Your task to perform on an android device: delete location history Image 0: 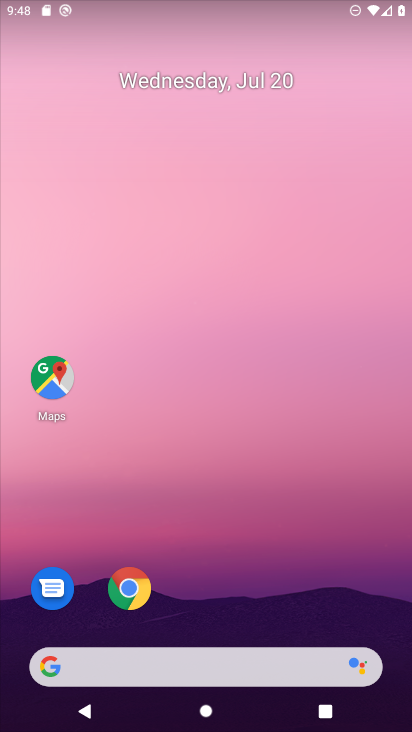
Step 0: press home button
Your task to perform on an android device: delete location history Image 1: 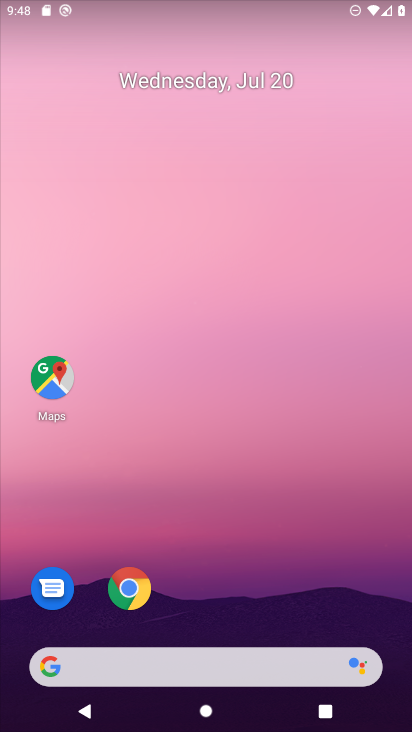
Step 1: click (52, 384)
Your task to perform on an android device: delete location history Image 2: 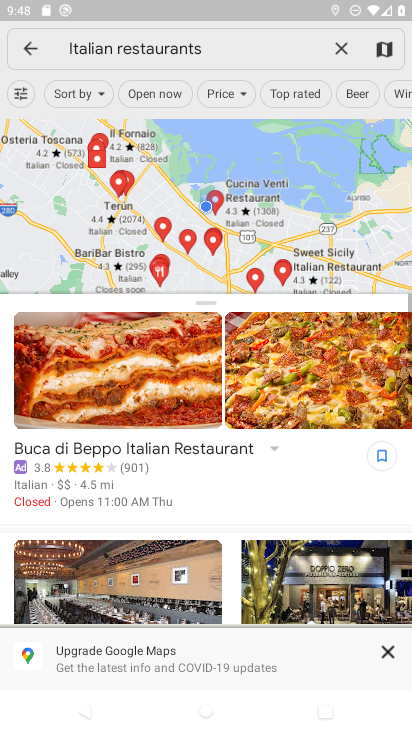
Step 2: click (28, 49)
Your task to perform on an android device: delete location history Image 3: 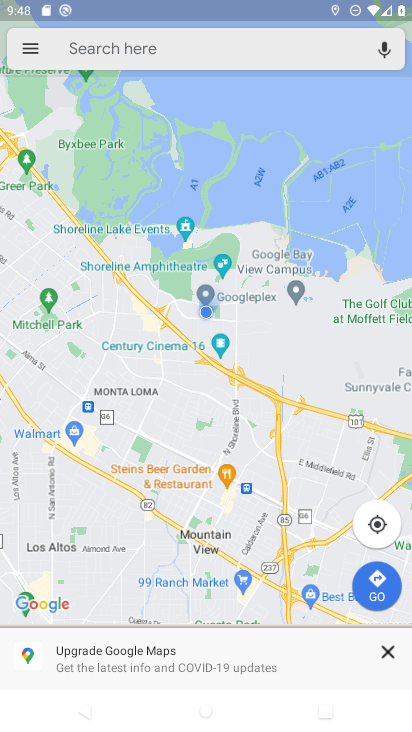
Step 3: click (24, 41)
Your task to perform on an android device: delete location history Image 4: 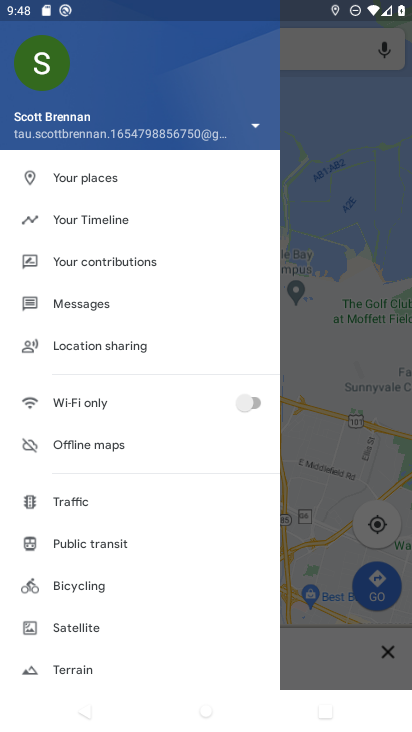
Step 4: drag from (124, 501) to (114, 270)
Your task to perform on an android device: delete location history Image 5: 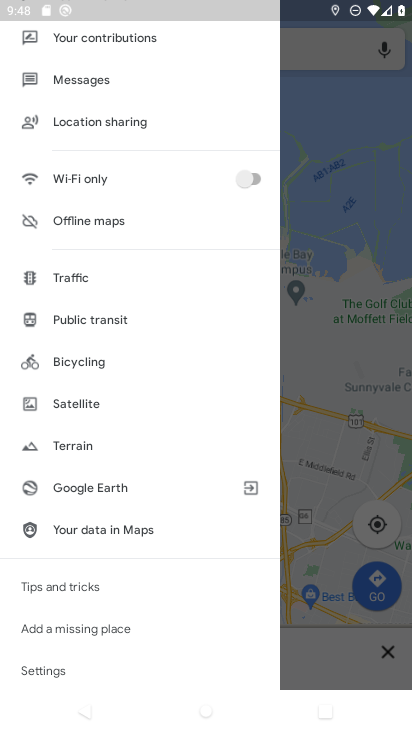
Step 5: click (64, 682)
Your task to perform on an android device: delete location history Image 6: 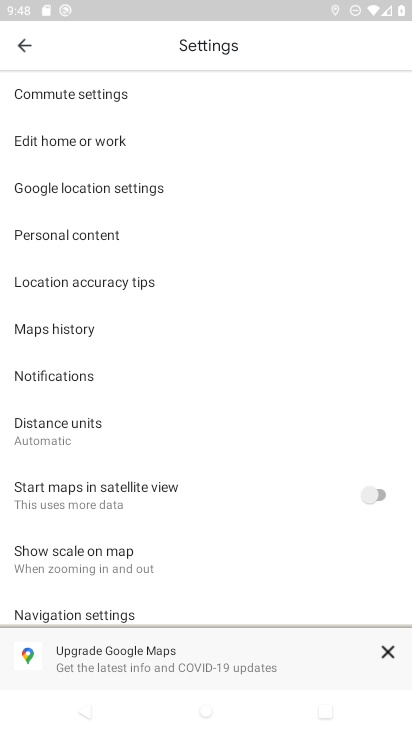
Step 6: click (42, 323)
Your task to perform on an android device: delete location history Image 7: 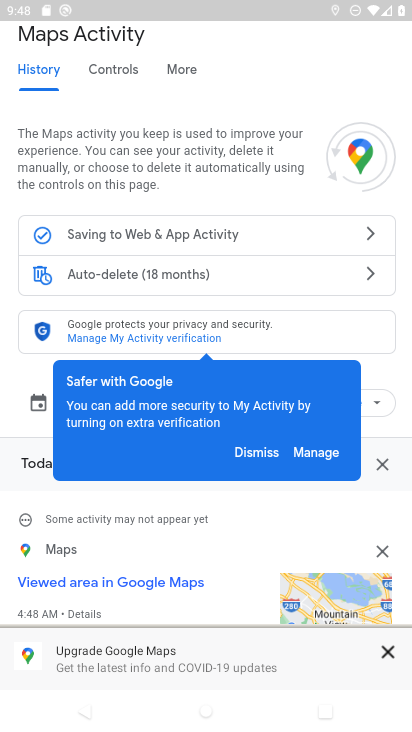
Step 7: click (386, 651)
Your task to perform on an android device: delete location history Image 8: 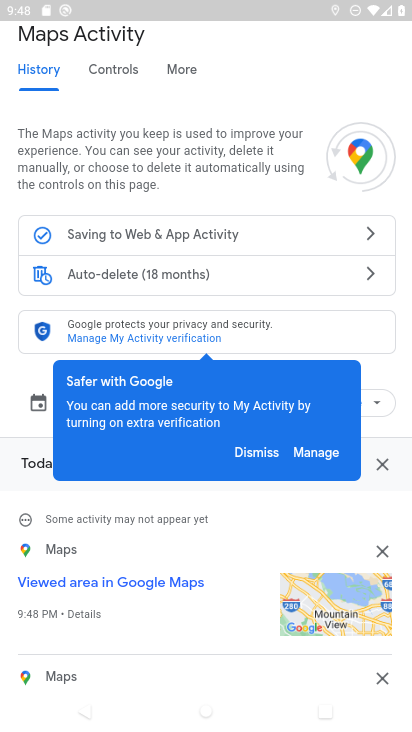
Step 8: click (307, 457)
Your task to perform on an android device: delete location history Image 9: 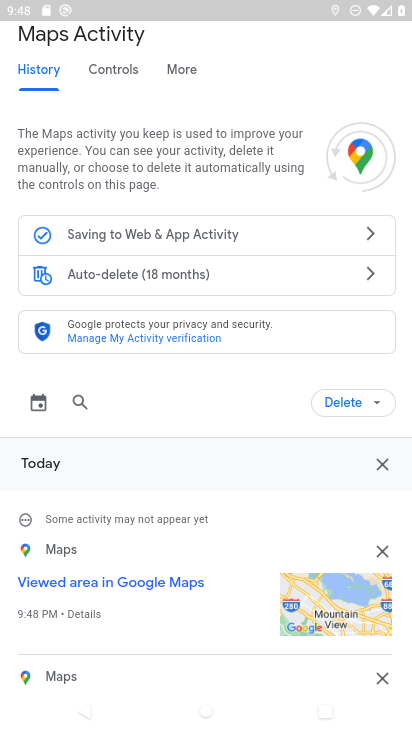
Step 9: click (345, 411)
Your task to perform on an android device: delete location history Image 10: 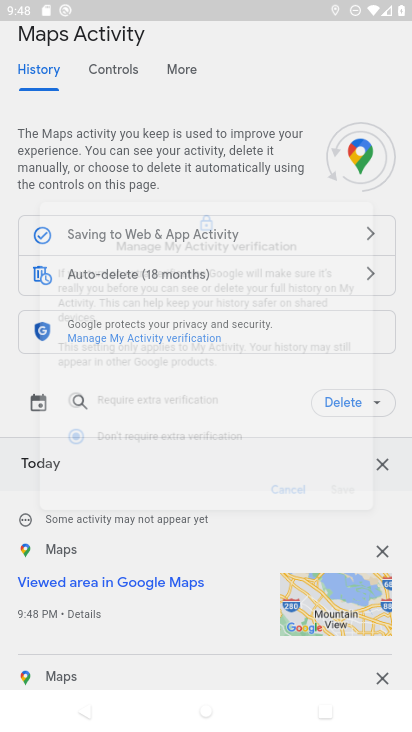
Step 10: click (347, 401)
Your task to perform on an android device: delete location history Image 11: 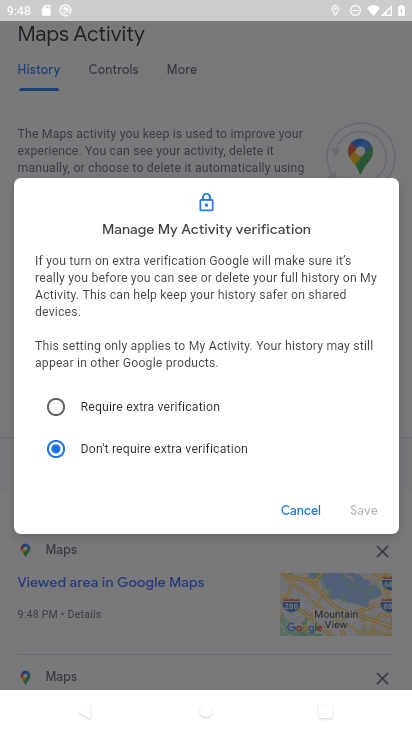
Step 11: click (305, 508)
Your task to perform on an android device: delete location history Image 12: 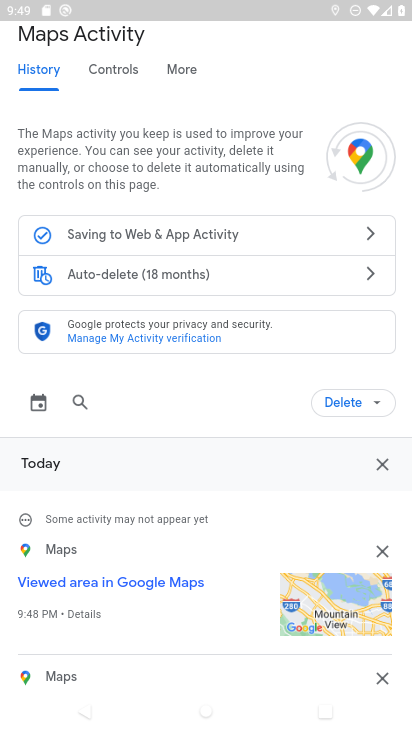
Step 12: click (339, 399)
Your task to perform on an android device: delete location history Image 13: 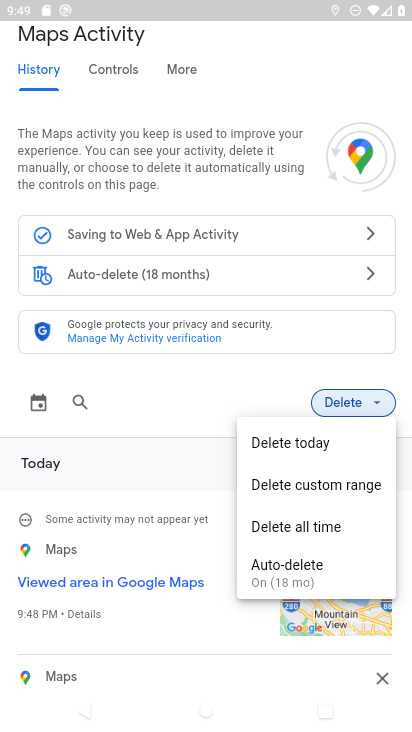
Step 13: click (320, 527)
Your task to perform on an android device: delete location history Image 14: 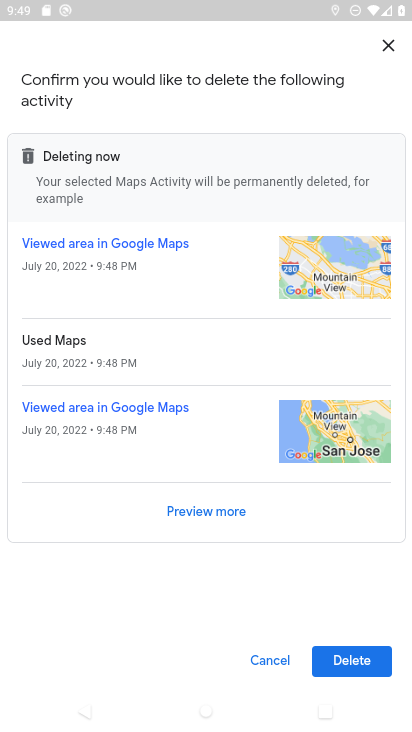
Step 14: click (358, 657)
Your task to perform on an android device: delete location history Image 15: 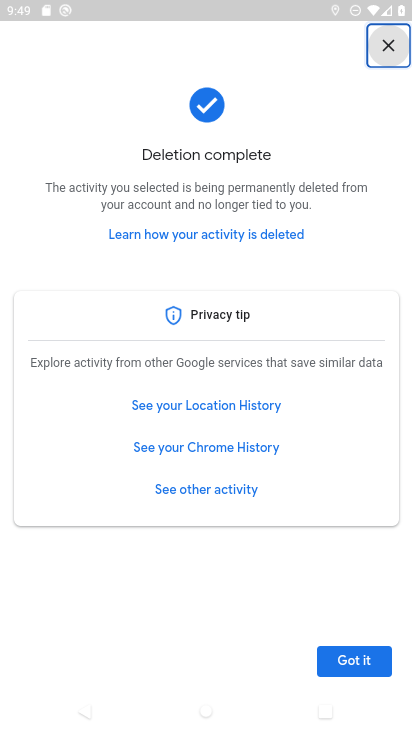
Step 15: click (340, 657)
Your task to perform on an android device: delete location history Image 16: 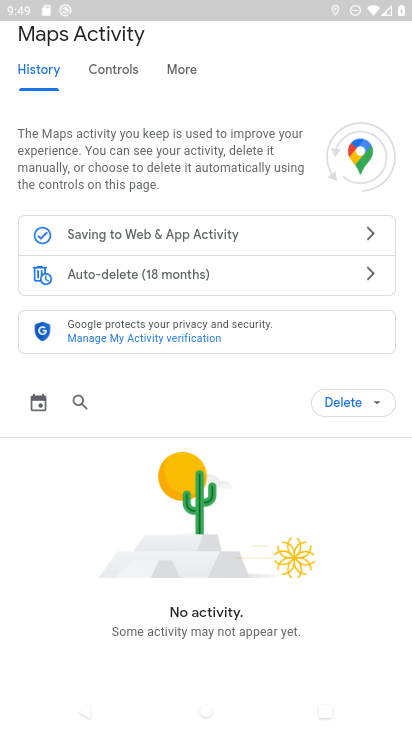
Step 16: task complete